Your task to perform on an android device: Search for alienware aurora on amazon.com, select the first entry, and add it to the cart. Image 0: 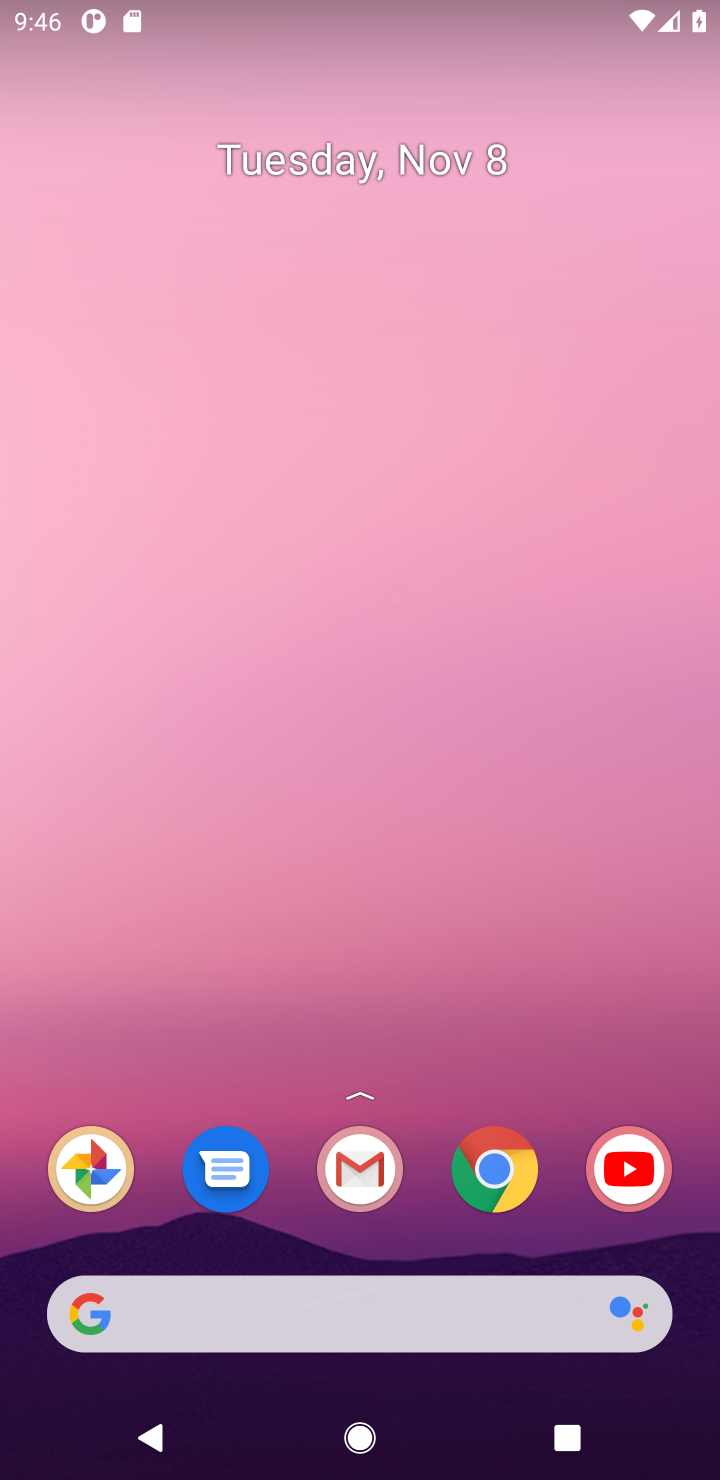
Step 0: click (511, 1171)
Your task to perform on an android device: Search for alienware aurora on amazon.com, select the first entry, and add it to the cart. Image 1: 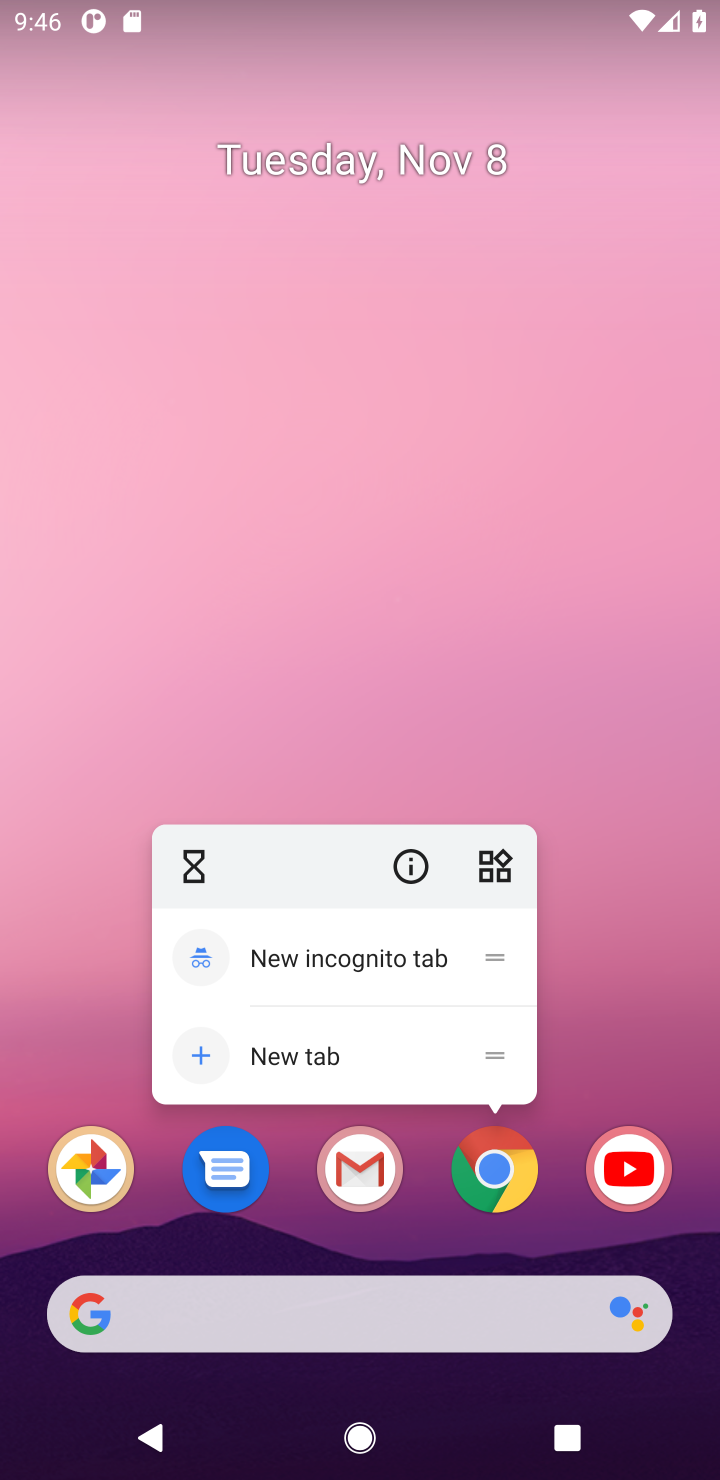
Step 1: click (511, 1171)
Your task to perform on an android device: Search for alienware aurora on amazon.com, select the first entry, and add it to the cart. Image 2: 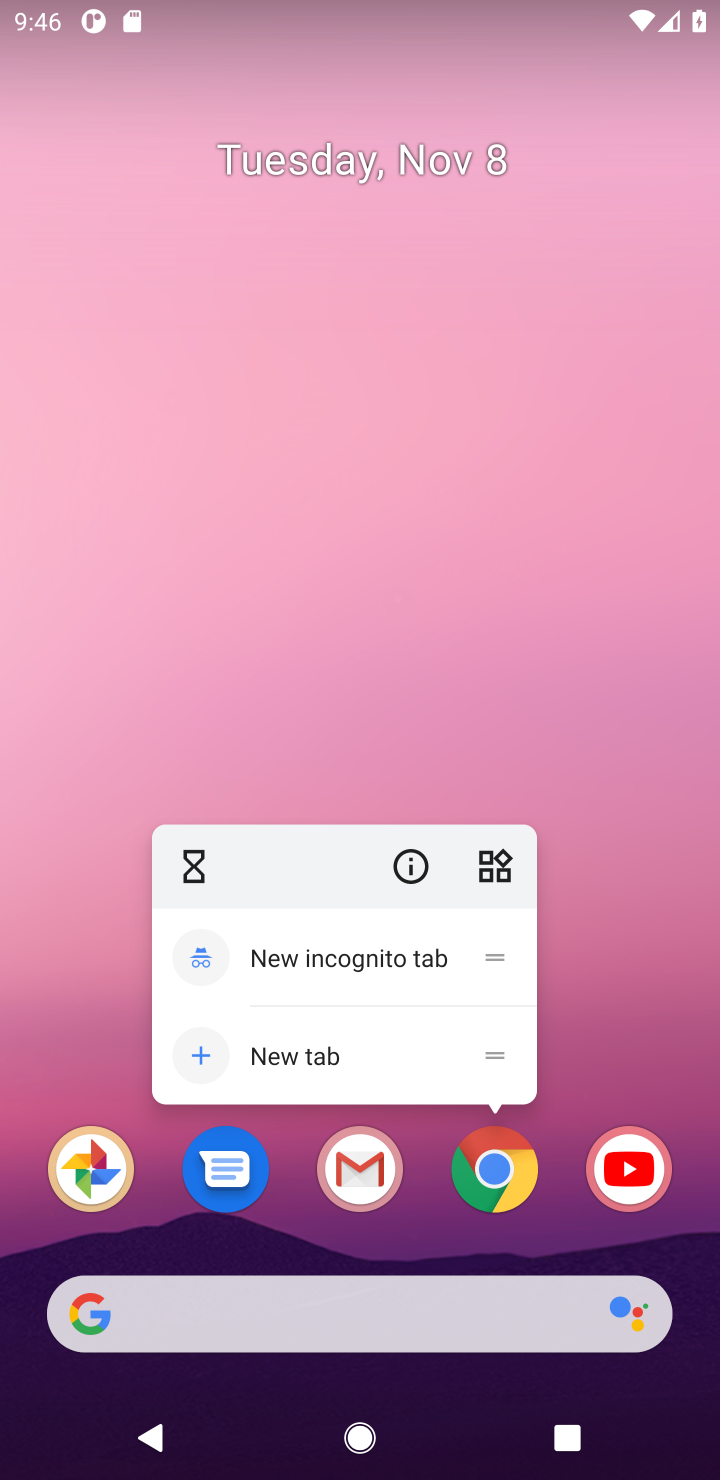
Step 2: click (511, 1171)
Your task to perform on an android device: Search for alienware aurora on amazon.com, select the first entry, and add it to the cart. Image 3: 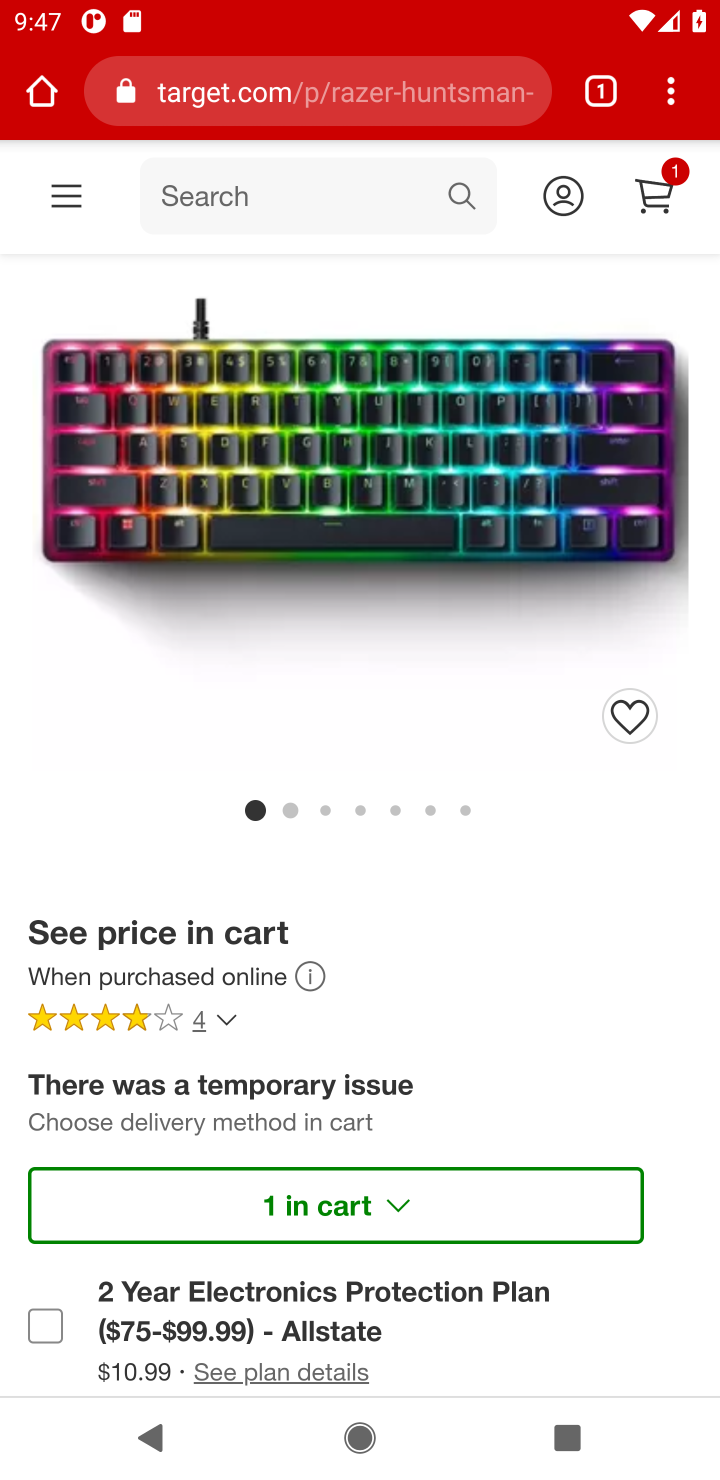
Step 3: click (409, 96)
Your task to perform on an android device: Search for alienware aurora on amazon.com, select the first entry, and add it to the cart. Image 4: 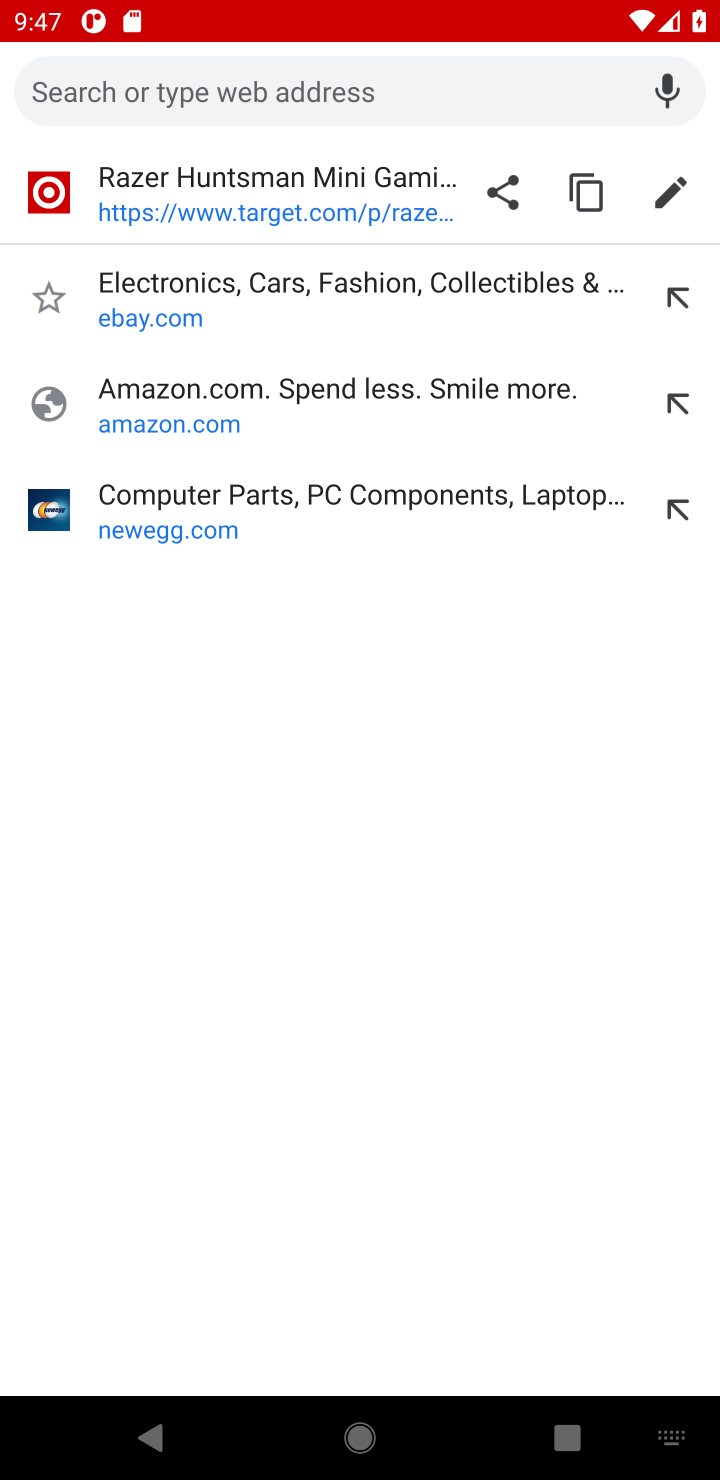
Step 4: click (227, 407)
Your task to perform on an android device: Search for alienware aurora on amazon.com, select the first entry, and add it to the cart. Image 5: 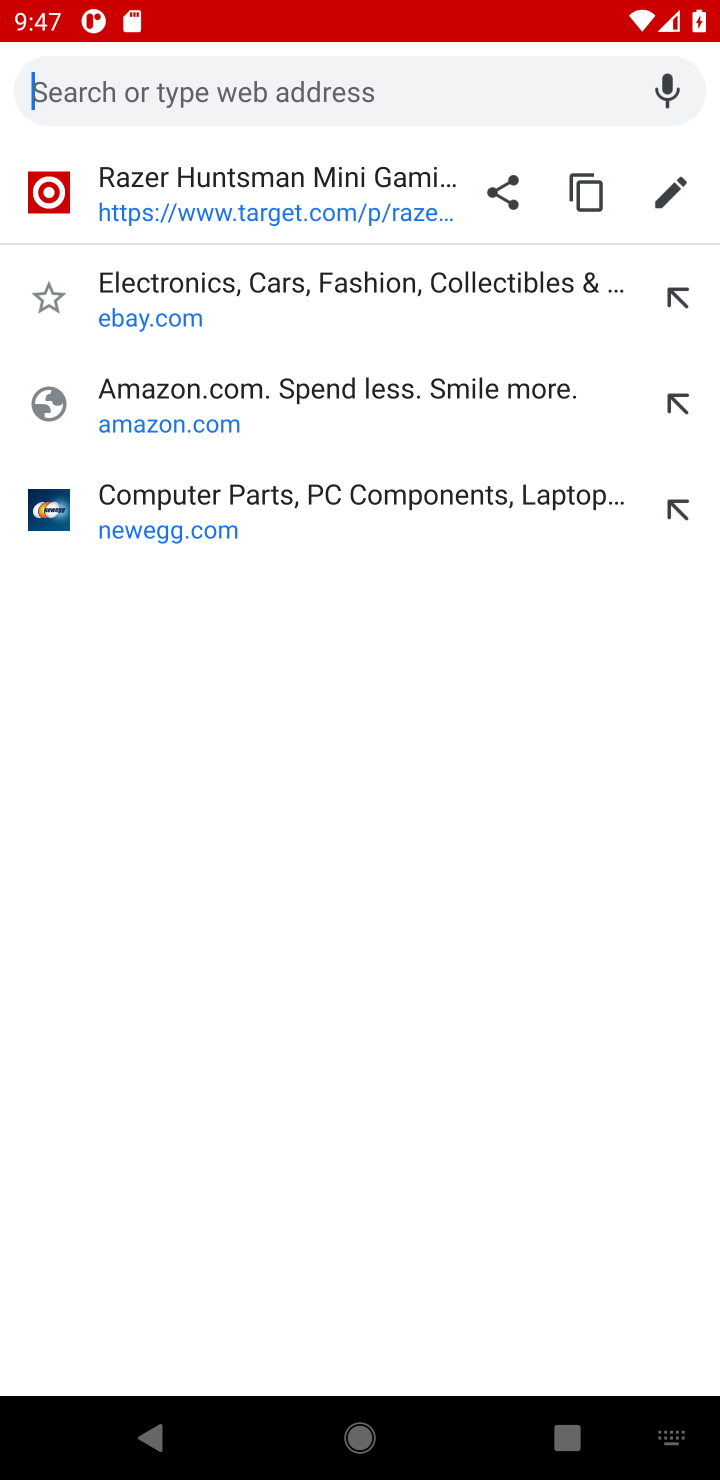
Step 5: click (174, 380)
Your task to perform on an android device: Search for alienware aurora on amazon.com, select the first entry, and add it to the cart. Image 6: 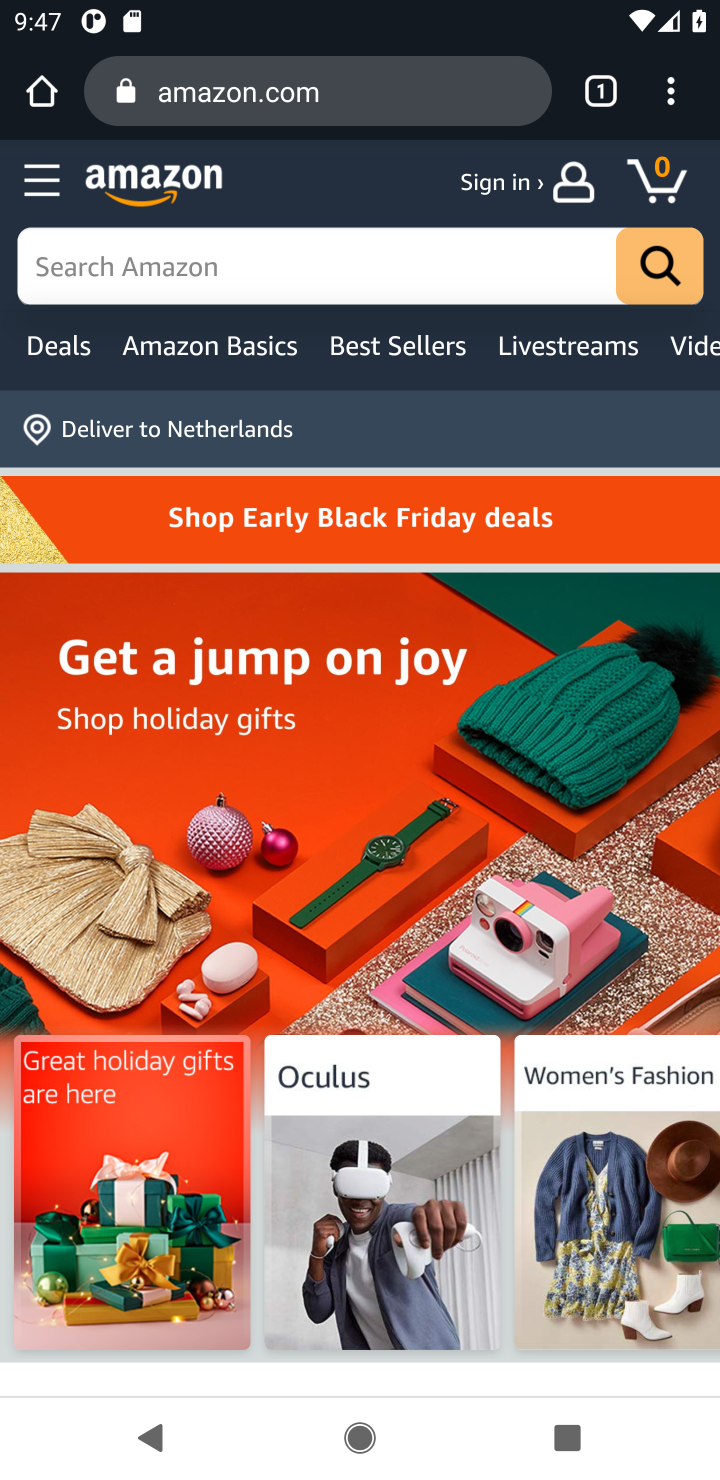
Step 6: click (509, 269)
Your task to perform on an android device: Search for alienware aurora on amazon.com, select the first entry, and add it to the cart. Image 7: 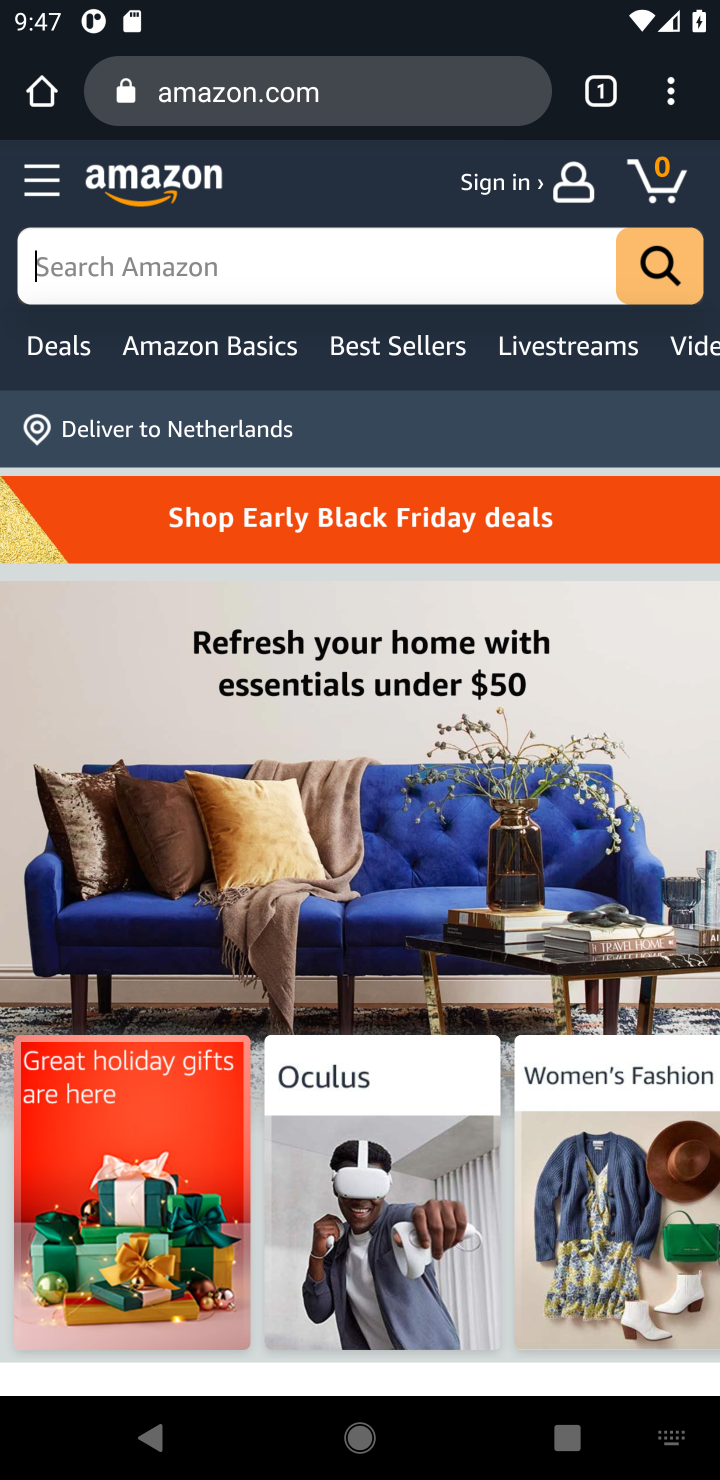
Step 7: type "alienware aurora "
Your task to perform on an android device: Search for alienware aurora on amazon.com, select the first entry, and add it to the cart. Image 8: 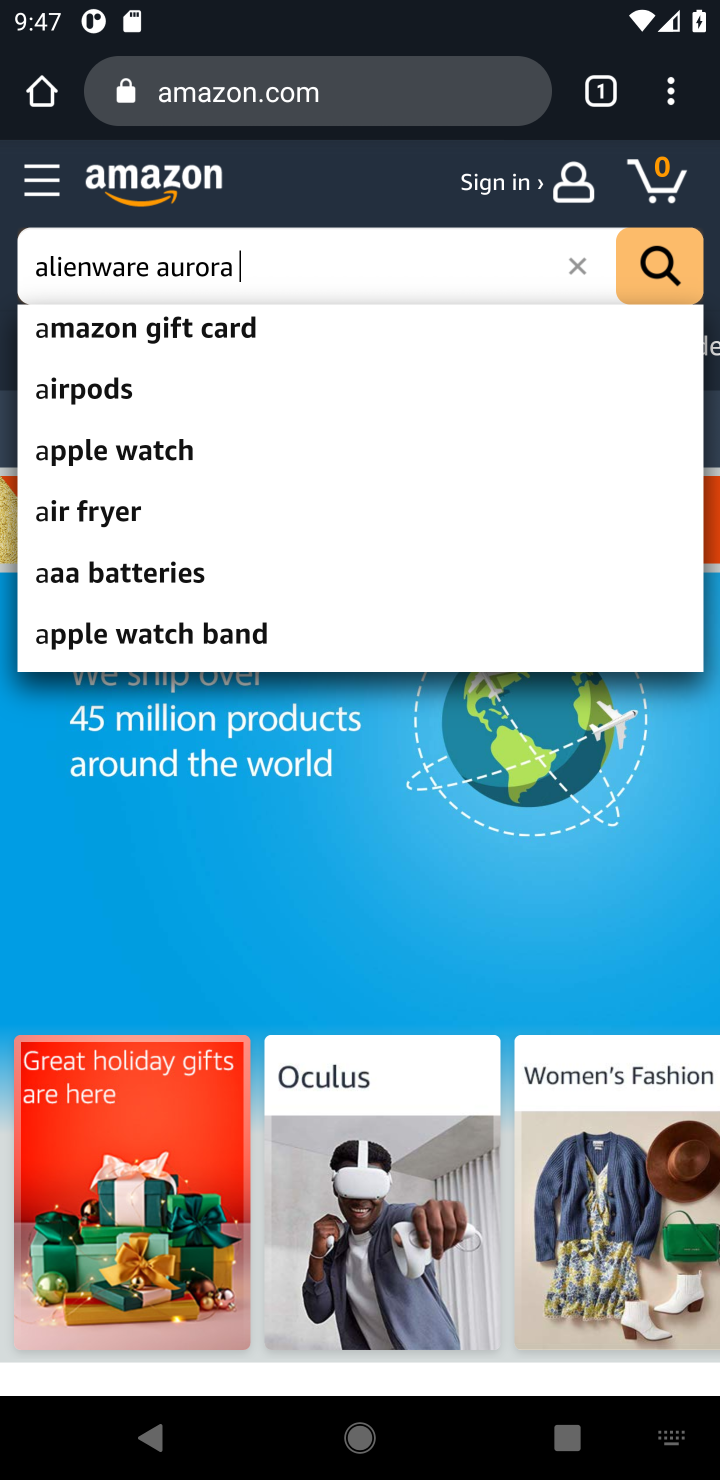
Step 8: press enter
Your task to perform on an android device: Search for alienware aurora on amazon.com, select the first entry, and add it to the cart. Image 9: 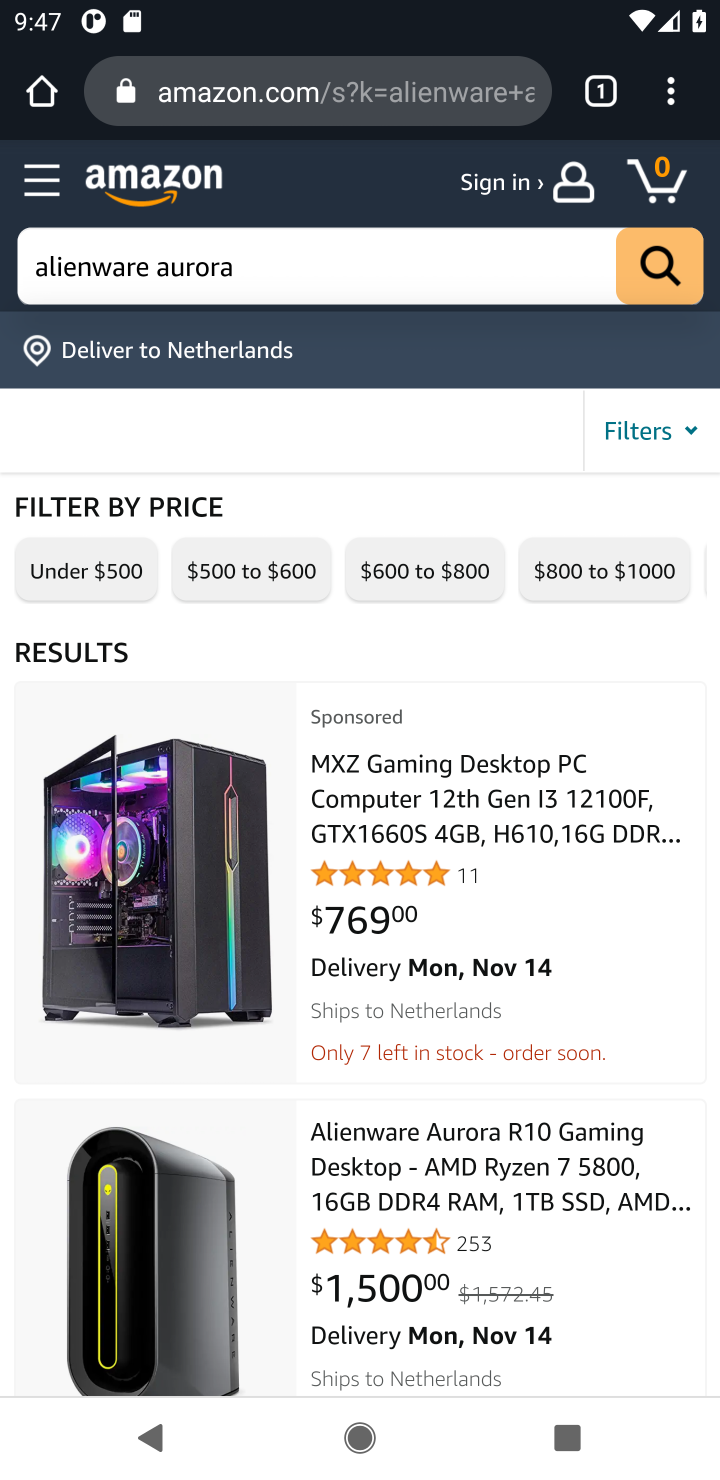
Step 9: click (184, 1172)
Your task to perform on an android device: Search for alienware aurora on amazon.com, select the first entry, and add it to the cart. Image 10: 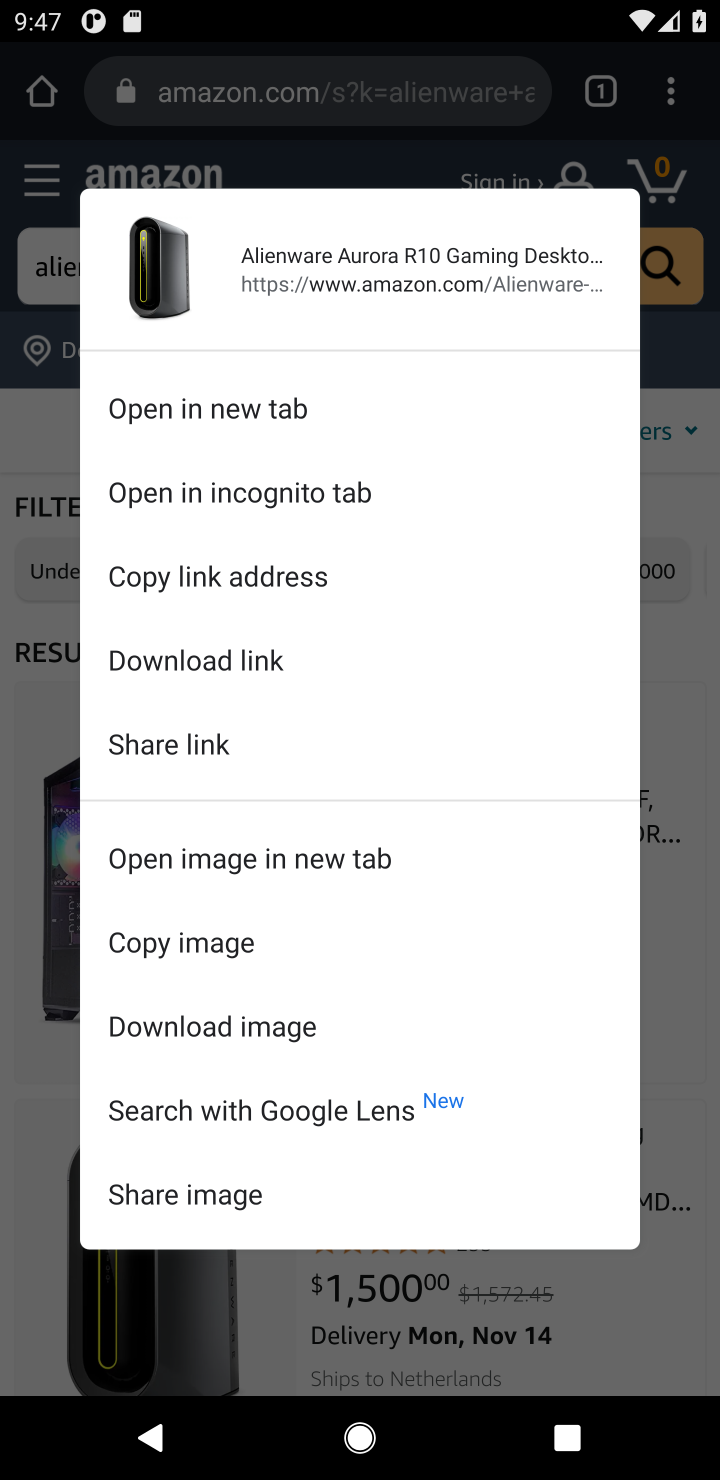
Step 10: click (712, 933)
Your task to perform on an android device: Search for alienware aurora on amazon.com, select the first entry, and add it to the cart. Image 11: 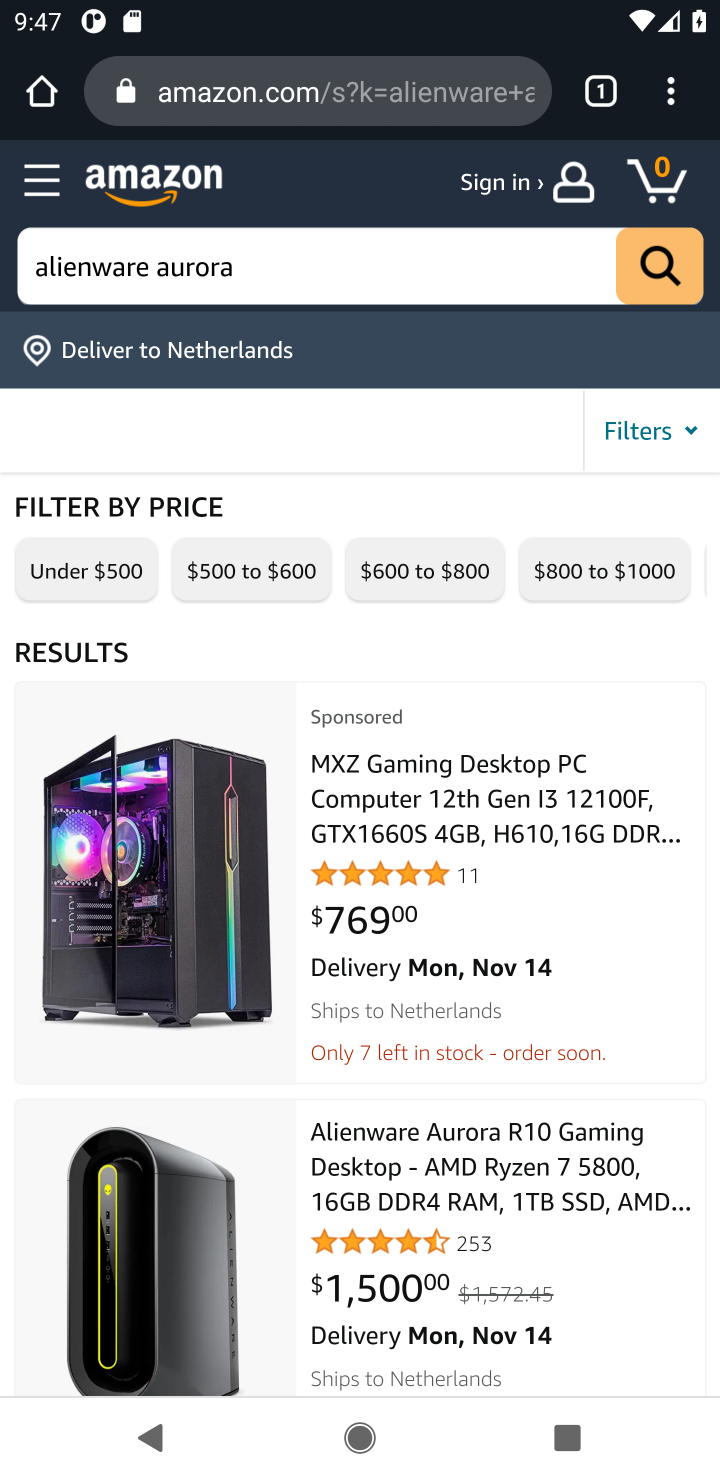
Step 11: click (187, 1179)
Your task to perform on an android device: Search for alienware aurora on amazon.com, select the first entry, and add it to the cart. Image 12: 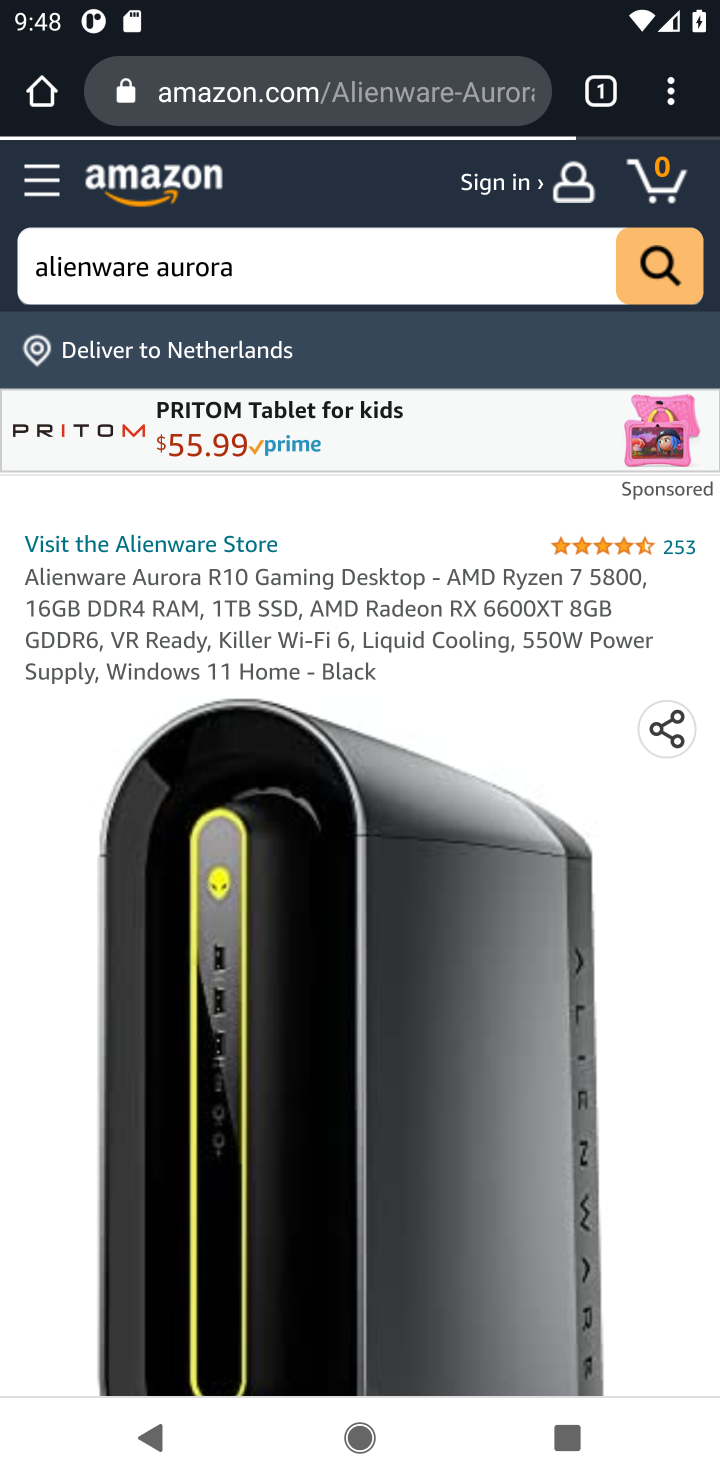
Step 12: drag from (532, 907) to (552, 350)
Your task to perform on an android device: Search for alienware aurora on amazon.com, select the first entry, and add it to the cart. Image 13: 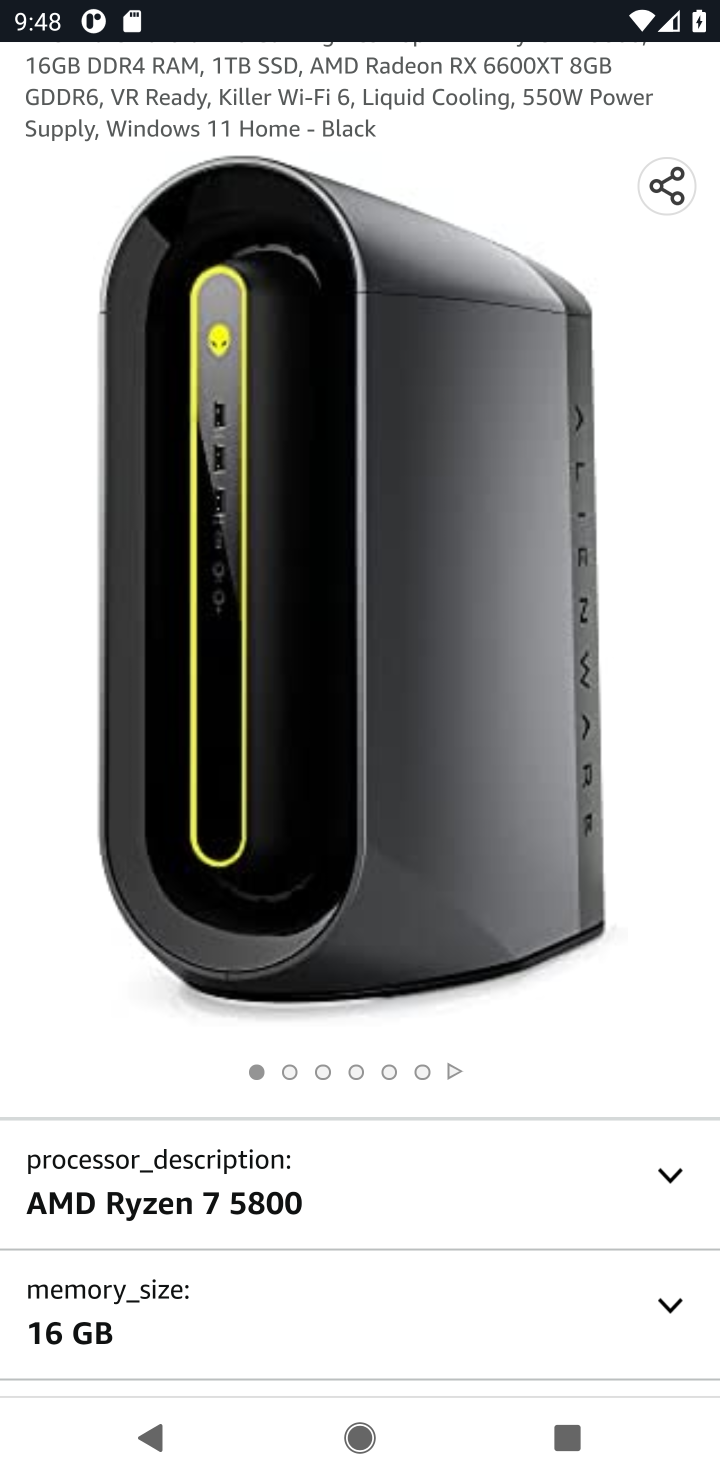
Step 13: drag from (521, 1205) to (533, 371)
Your task to perform on an android device: Search for alienware aurora on amazon.com, select the first entry, and add it to the cart. Image 14: 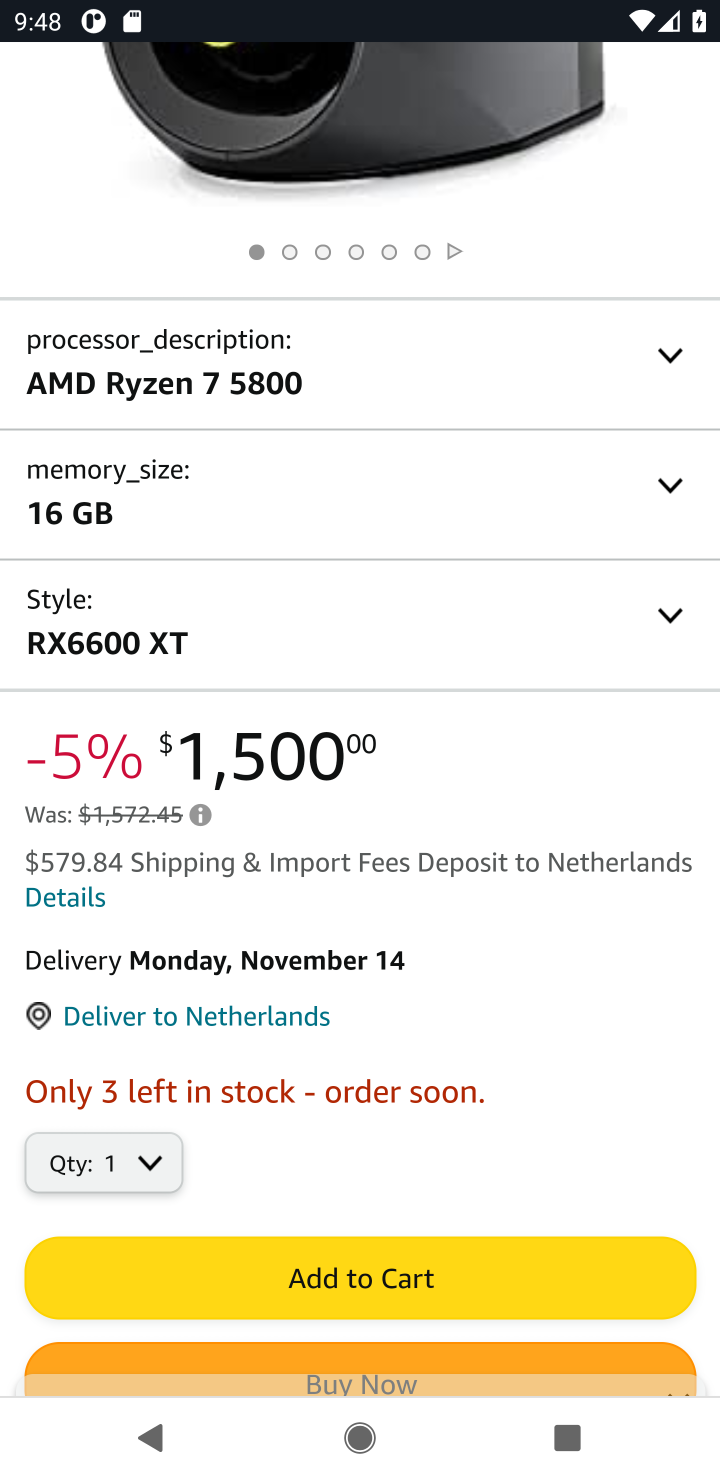
Step 14: click (488, 1282)
Your task to perform on an android device: Search for alienware aurora on amazon.com, select the first entry, and add it to the cart. Image 15: 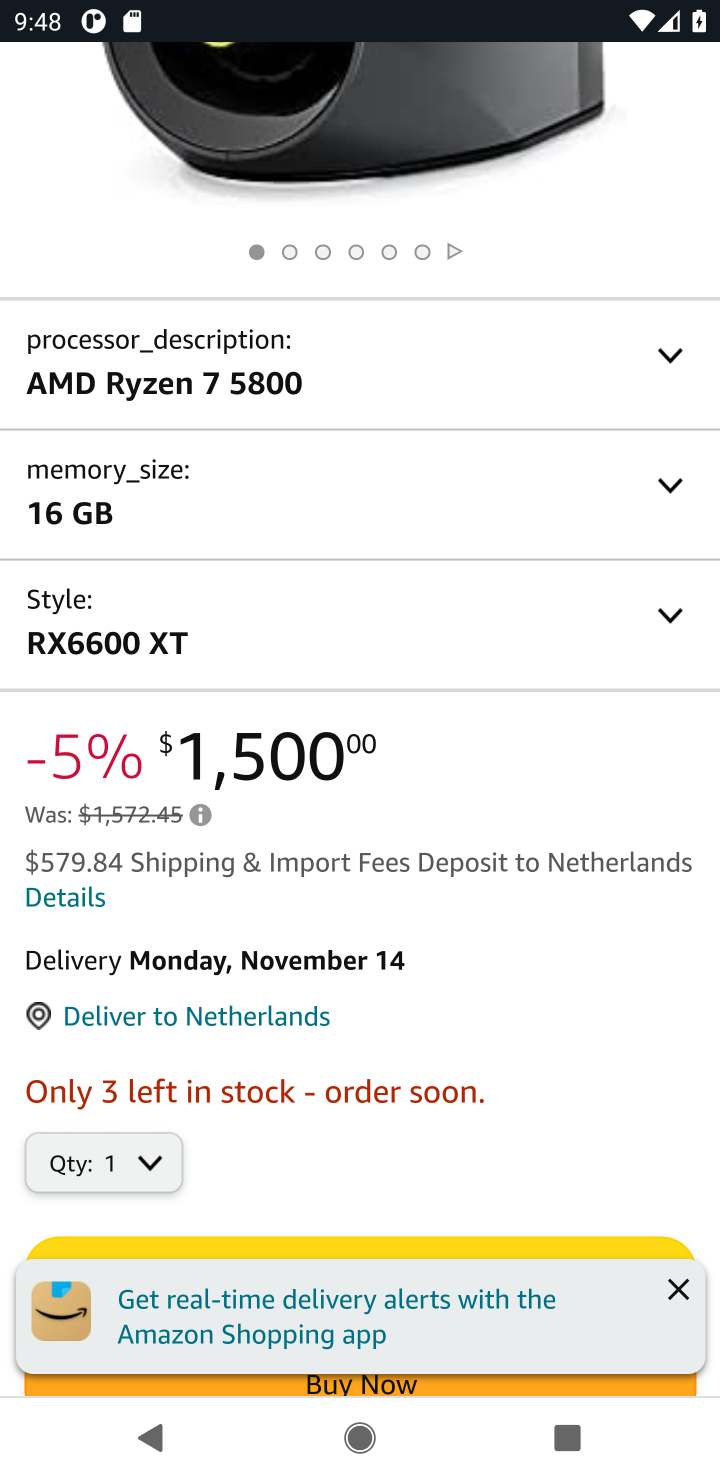
Step 15: click (665, 1288)
Your task to perform on an android device: Search for alienware aurora on amazon.com, select the first entry, and add it to the cart. Image 16: 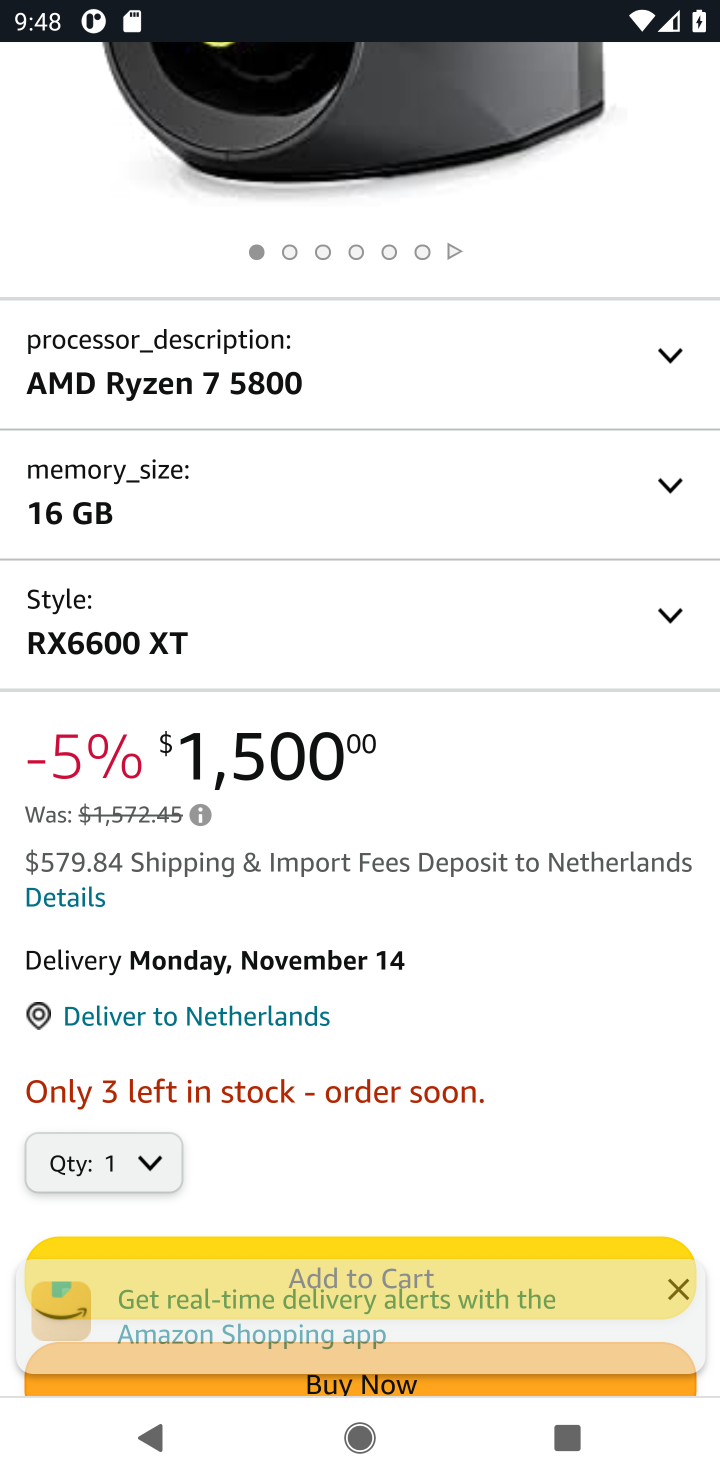
Step 16: drag from (621, 1051) to (661, 616)
Your task to perform on an android device: Search for alienware aurora on amazon.com, select the first entry, and add it to the cart. Image 17: 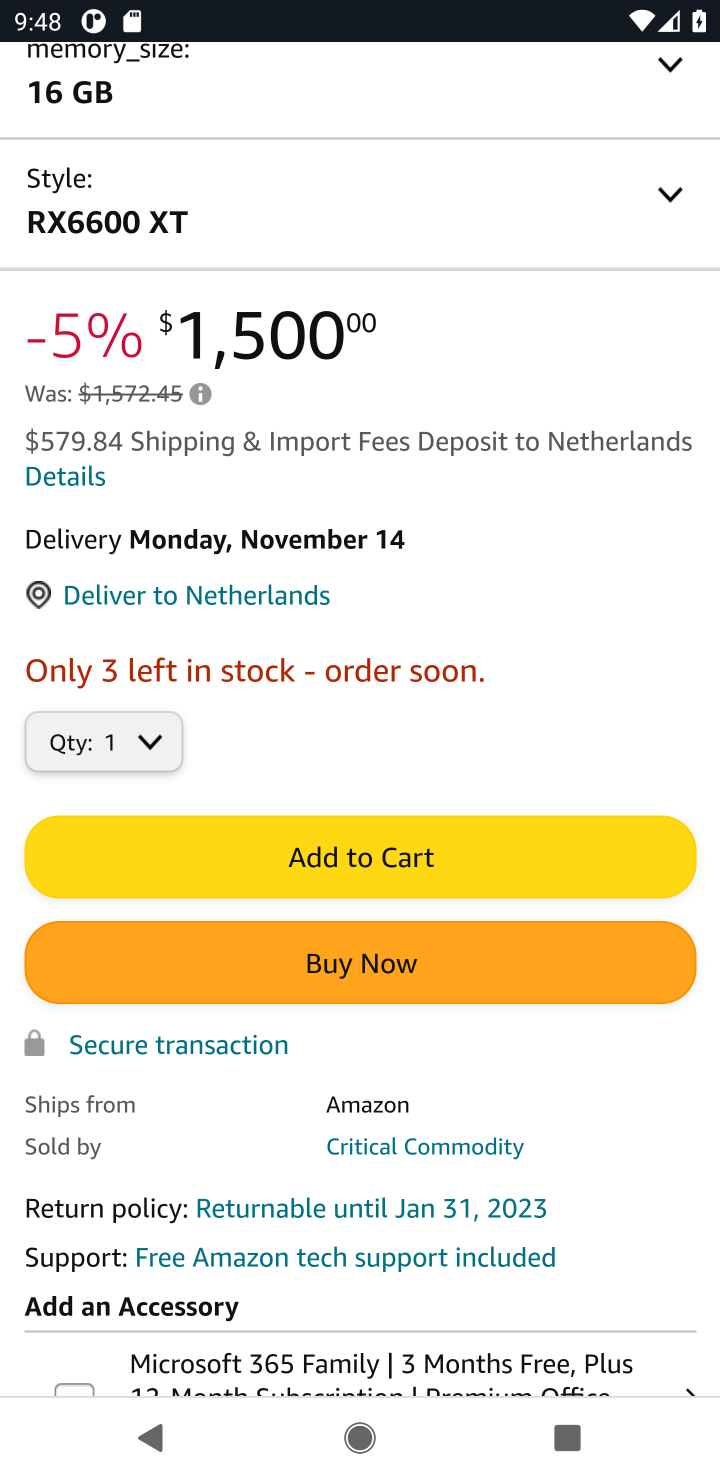
Step 17: click (338, 852)
Your task to perform on an android device: Search for alienware aurora on amazon.com, select the first entry, and add it to the cart. Image 18: 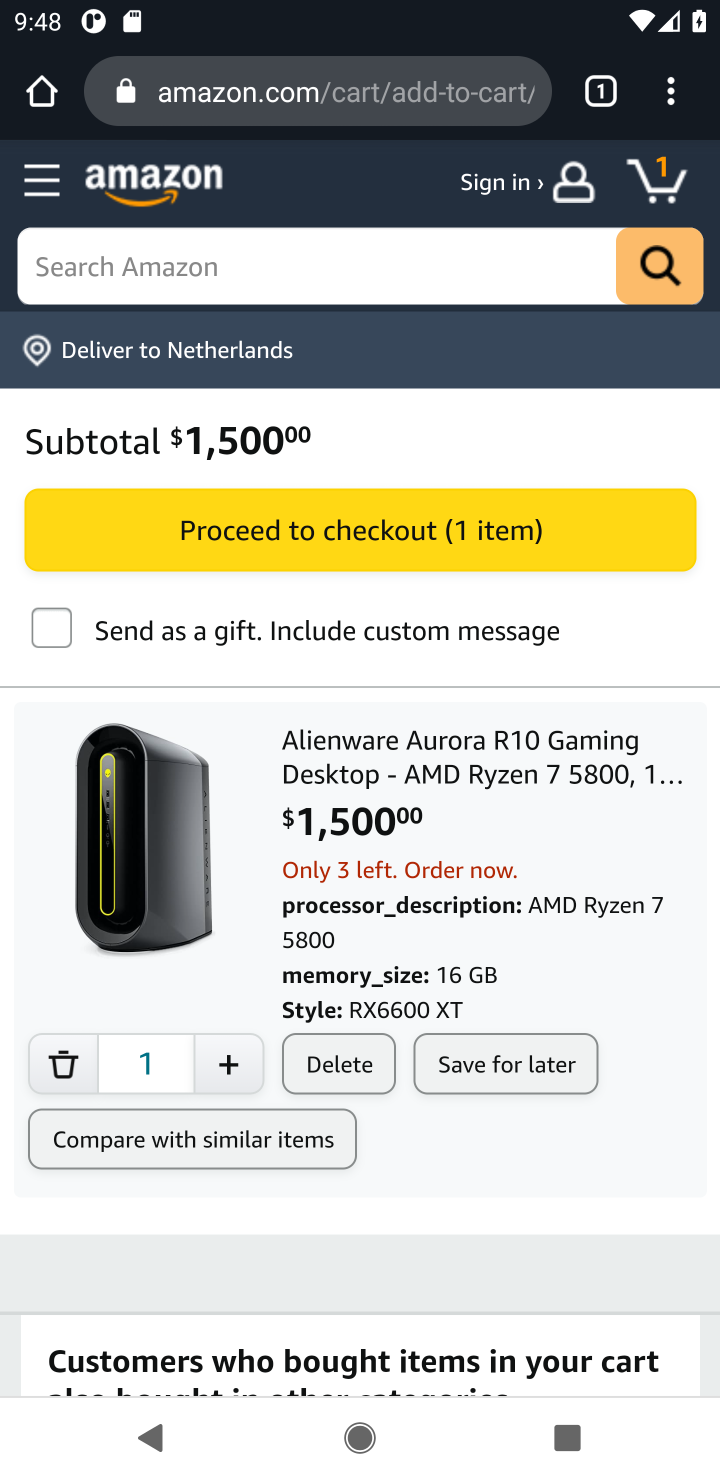
Step 18: task complete